Your task to perform on an android device: toggle show notifications on the lock screen Image 0: 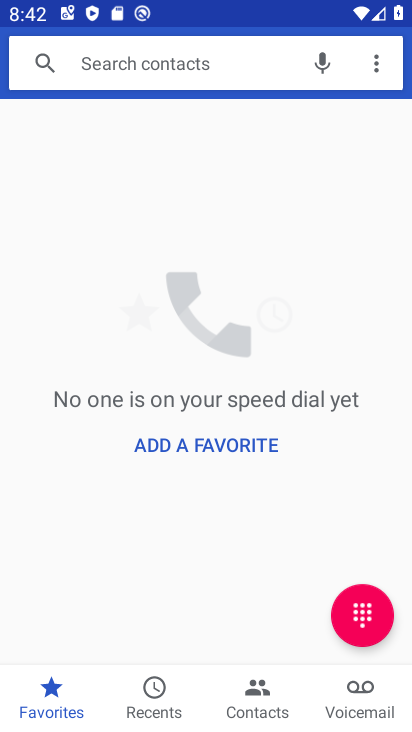
Step 0: press home button
Your task to perform on an android device: toggle show notifications on the lock screen Image 1: 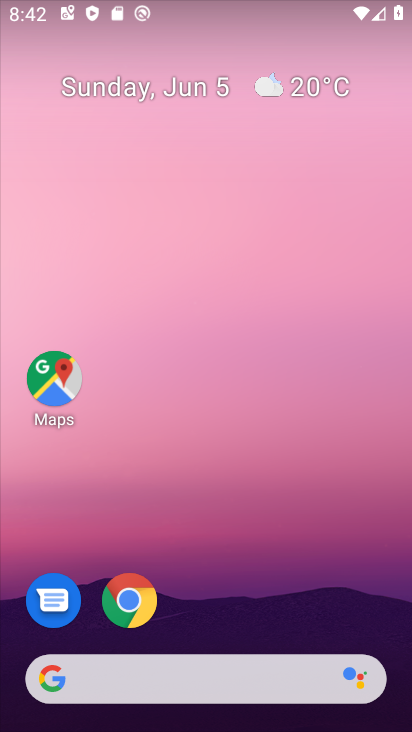
Step 1: drag from (245, 510) to (239, 23)
Your task to perform on an android device: toggle show notifications on the lock screen Image 2: 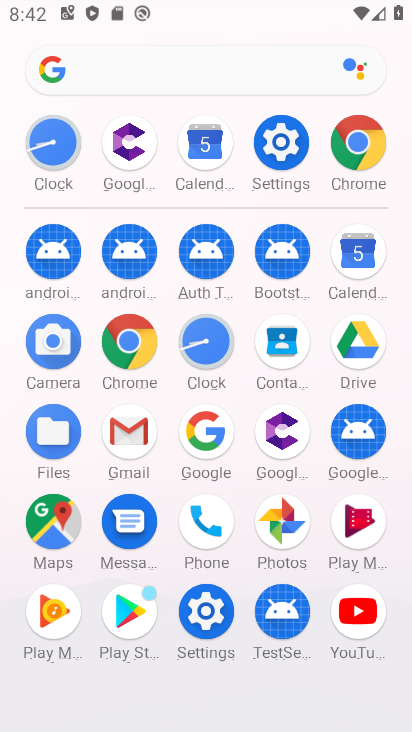
Step 2: click (283, 142)
Your task to perform on an android device: toggle show notifications on the lock screen Image 3: 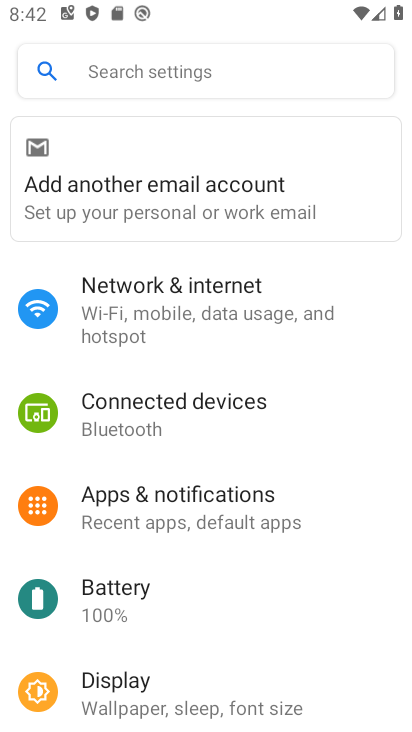
Step 3: click (233, 512)
Your task to perform on an android device: toggle show notifications on the lock screen Image 4: 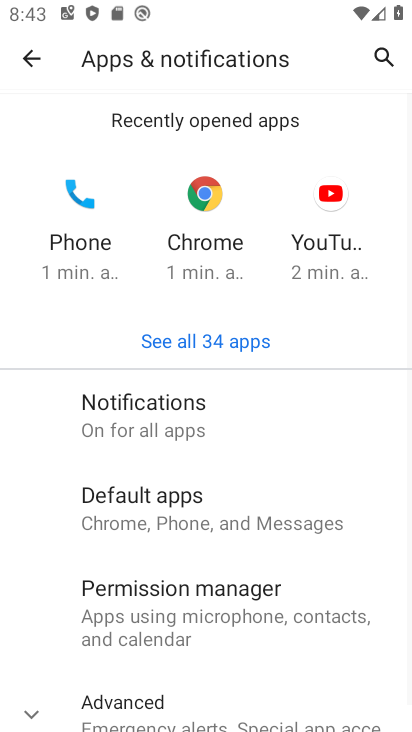
Step 4: click (199, 426)
Your task to perform on an android device: toggle show notifications on the lock screen Image 5: 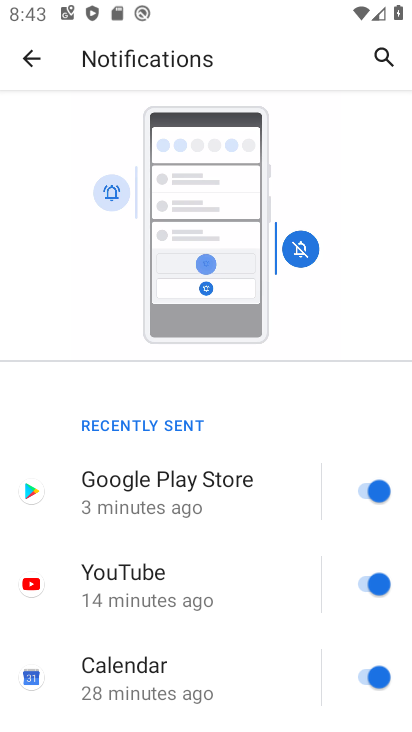
Step 5: drag from (247, 540) to (310, 0)
Your task to perform on an android device: toggle show notifications on the lock screen Image 6: 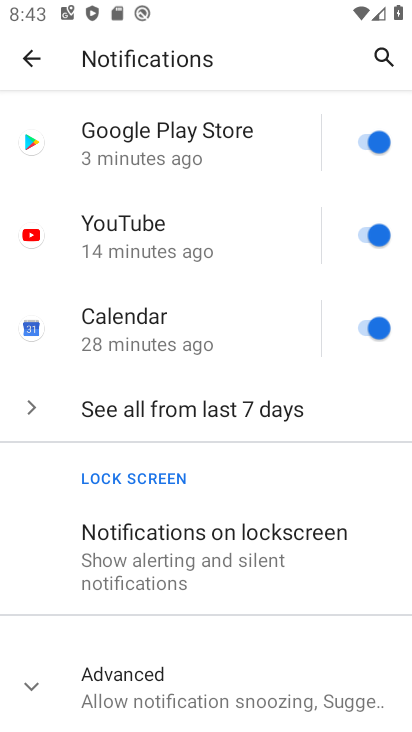
Step 6: click (214, 557)
Your task to perform on an android device: toggle show notifications on the lock screen Image 7: 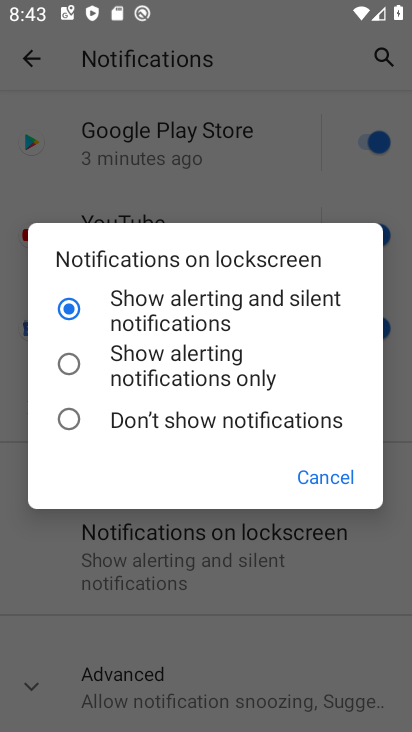
Step 7: click (73, 417)
Your task to perform on an android device: toggle show notifications on the lock screen Image 8: 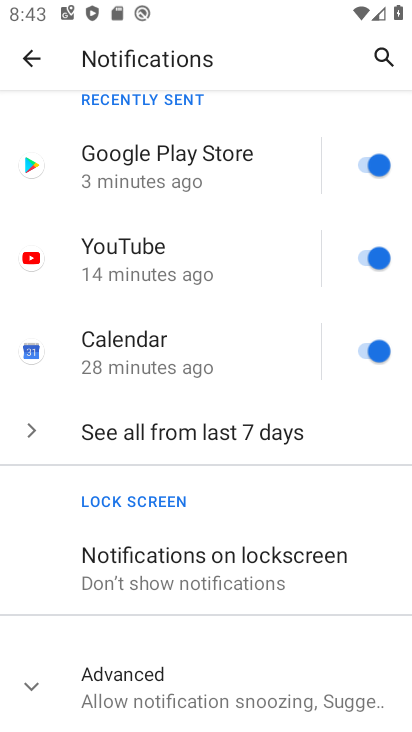
Step 8: task complete